Your task to perform on an android device: change the upload size in google photos Image 0: 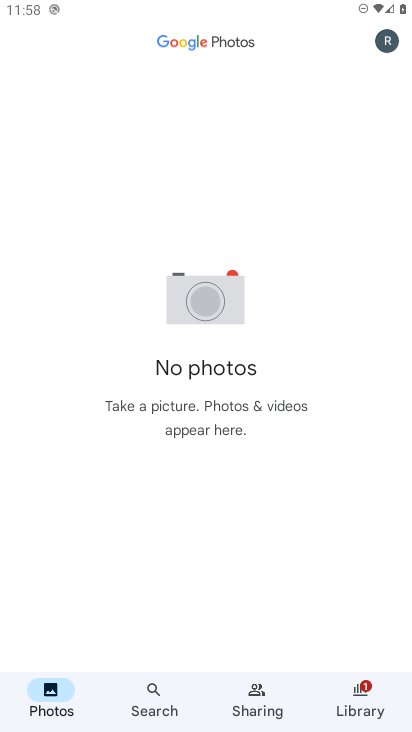
Step 0: press home button
Your task to perform on an android device: change the upload size in google photos Image 1: 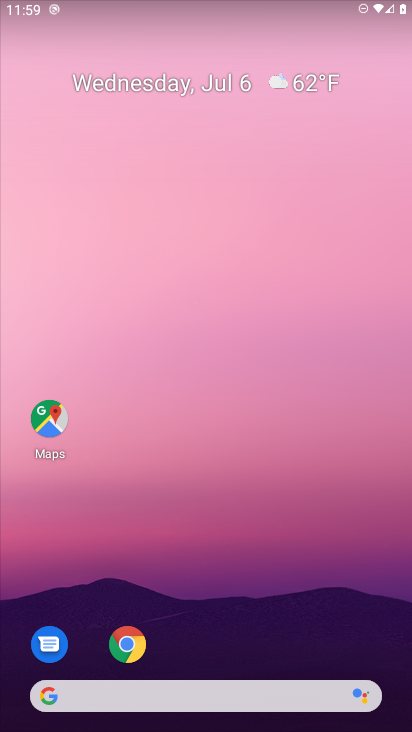
Step 1: drag from (237, 591) to (235, 102)
Your task to perform on an android device: change the upload size in google photos Image 2: 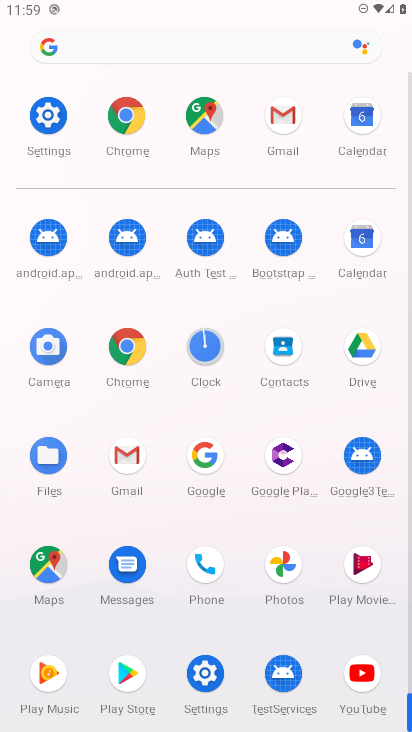
Step 2: click (289, 552)
Your task to perform on an android device: change the upload size in google photos Image 3: 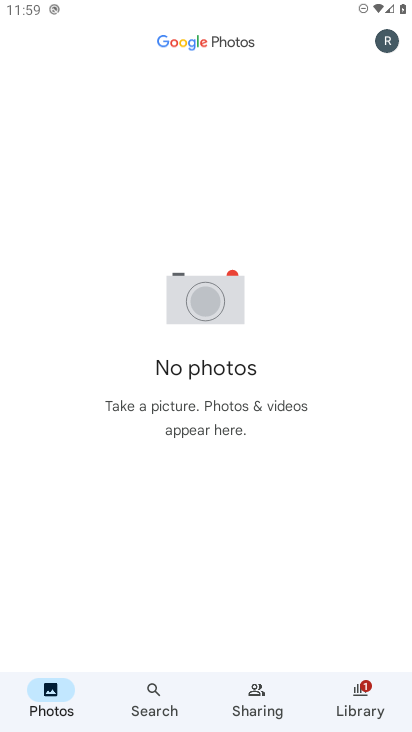
Step 3: click (387, 44)
Your task to perform on an android device: change the upload size in google photos Image 4: 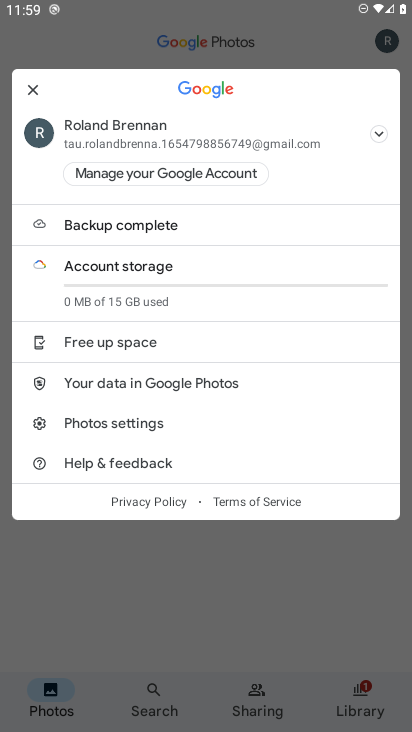
Step 4: click (140, 418)
Your task to perform on an android device: change the upload size in google photos Image 5: 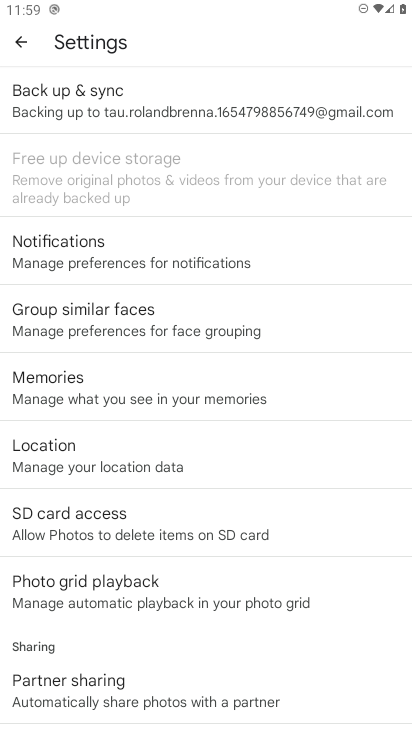
Step 5: drag from (348, 644) to (311, 302)
Your task to perform on an android device: change the upload size in google photos Image 6: 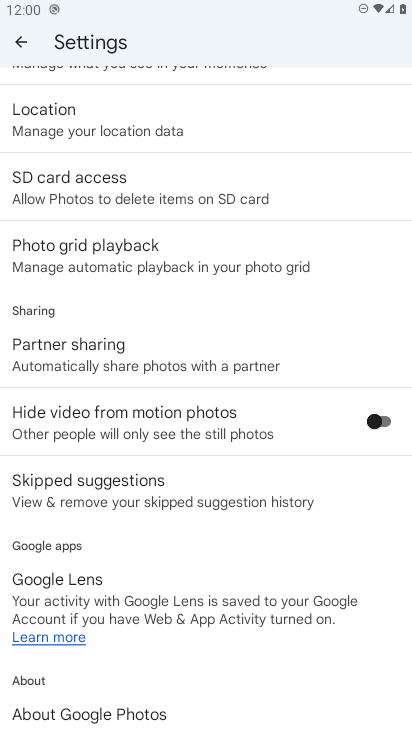
Step 6: drag from (335, 121) to (244, 670)
Your task to perform on an android device: change the upload size in google photos Image 7: 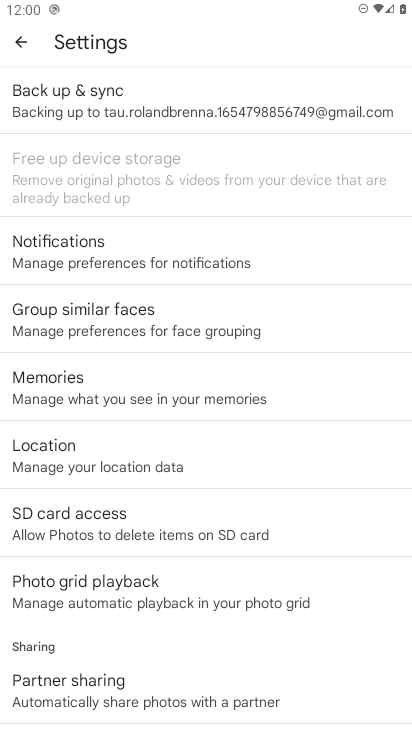
Step 7: click (251, 98)
Your task to perform on an android device: change the upload size in google photos Image 8: 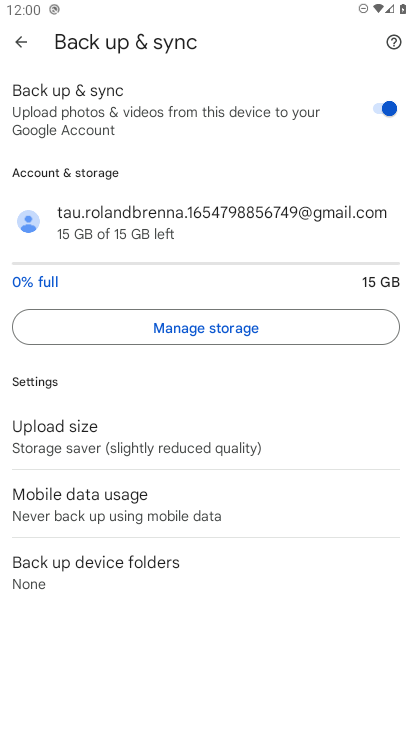
Step 8: click (151, 447)
Your task to perform on an android device: change the upload size in google photos Image 9: 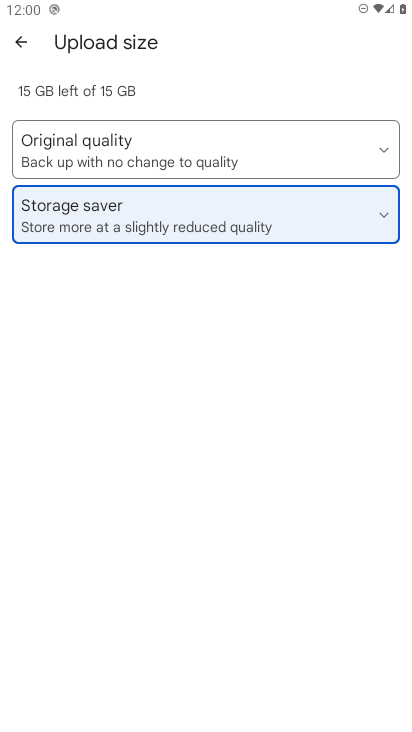
Step 9: click (217, 165)
Your task to perform on an android device: change the upload size in google photos Image 10: 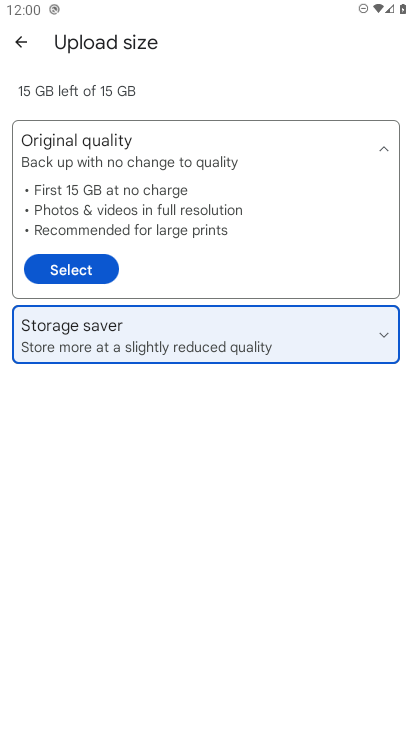
Step 10: click (61, 261)
Your task to perform on an android device: change the upload size in google photos Image 11: 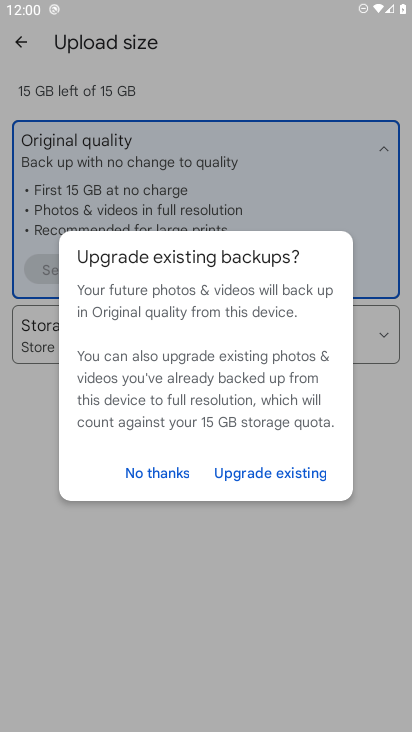
Step 11: click (167, 474)
Your task to perform on an android device: change the upload size in google photos Image 12: 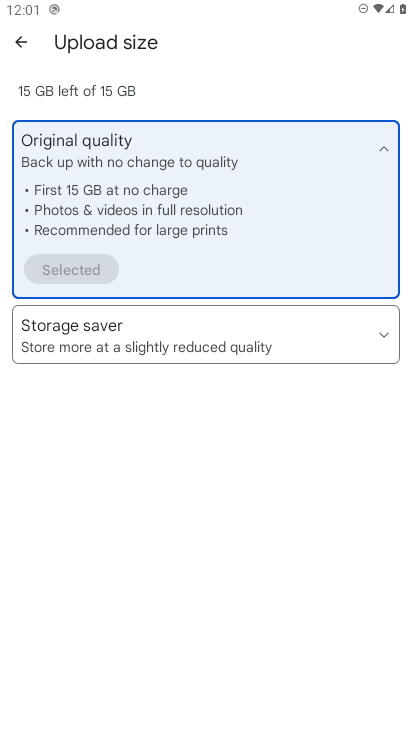
Step 12: task complete